Your task to perform on an android device: check storage Image 0: 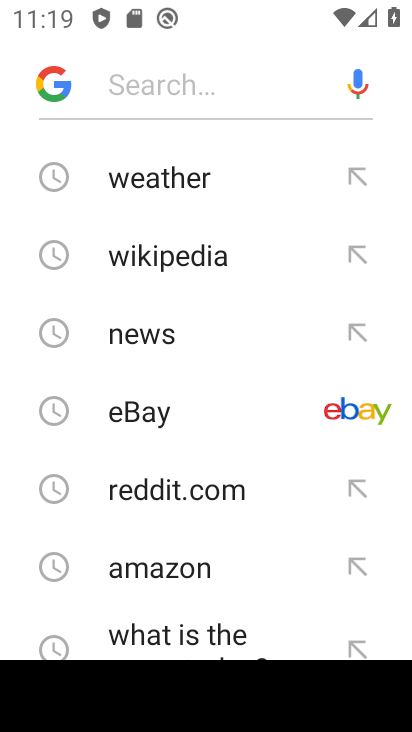
Step 0: press home button
Your task to perform on an android device: check storage Image 1: 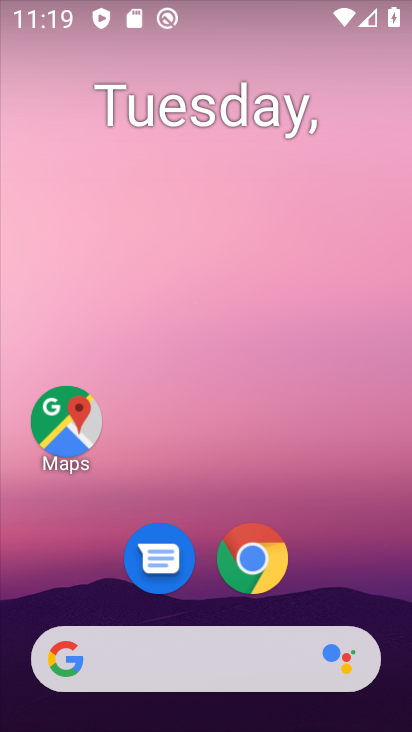
Step 1: drag from (334, 534) to (281, 0)
Your task to perform on an android device: check storage Image 2: 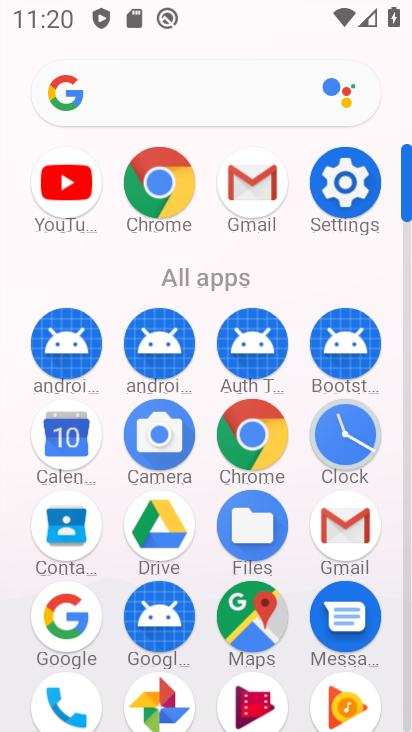
Step 2: click (325, 208)
Your task to perform on an android device: check storage Image 3: 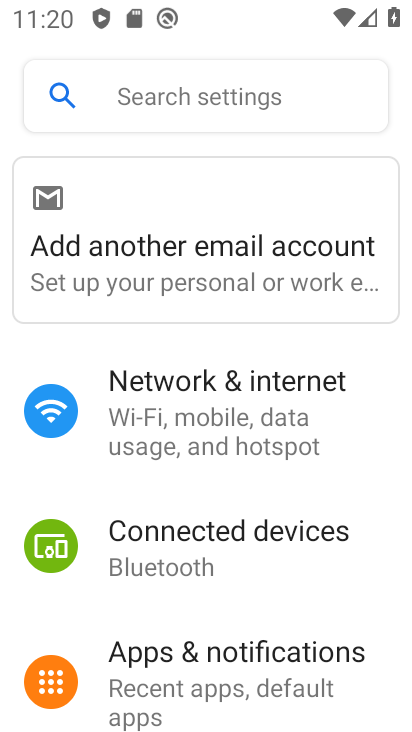
Step 3: drag from (399, 559) to (397, 313)
Your task to perform on an android device: check storage Image 4: 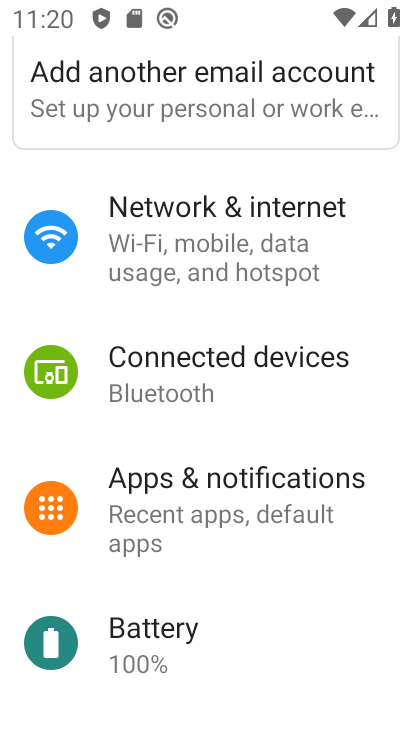
Step 4: drag from (246, 573) to (283, 235)
Your task to perform on an android device: check storage Image 5: 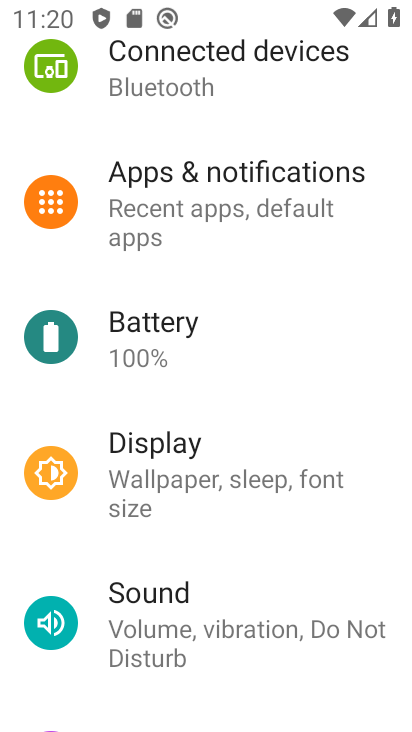
Step 5: drag from (179, 623) to (303, 119)
Your task to perform on an android device: check storage Image 6: 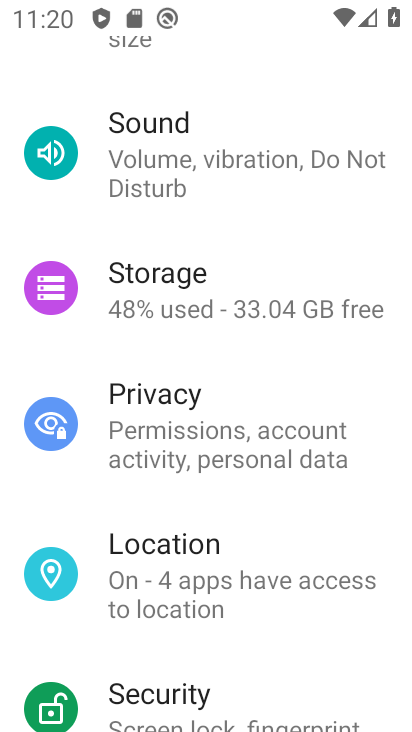
Step 6: click (290, 332)
Your task to perform on an android device: check storage Image 7: 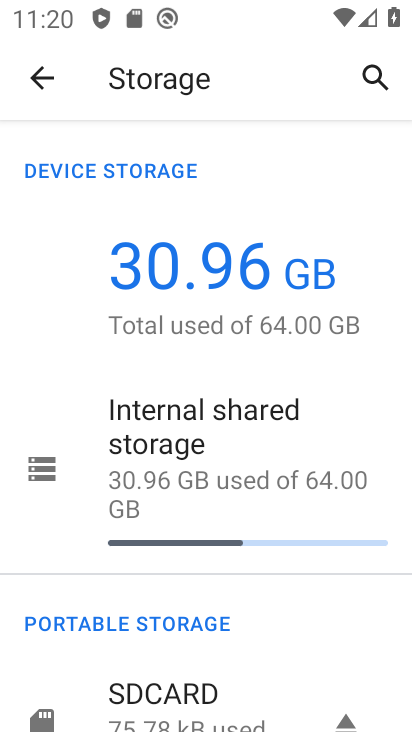
Step 7: task complete